Your task to perform on an android device: What's the weather like in Beijing? Image 0: 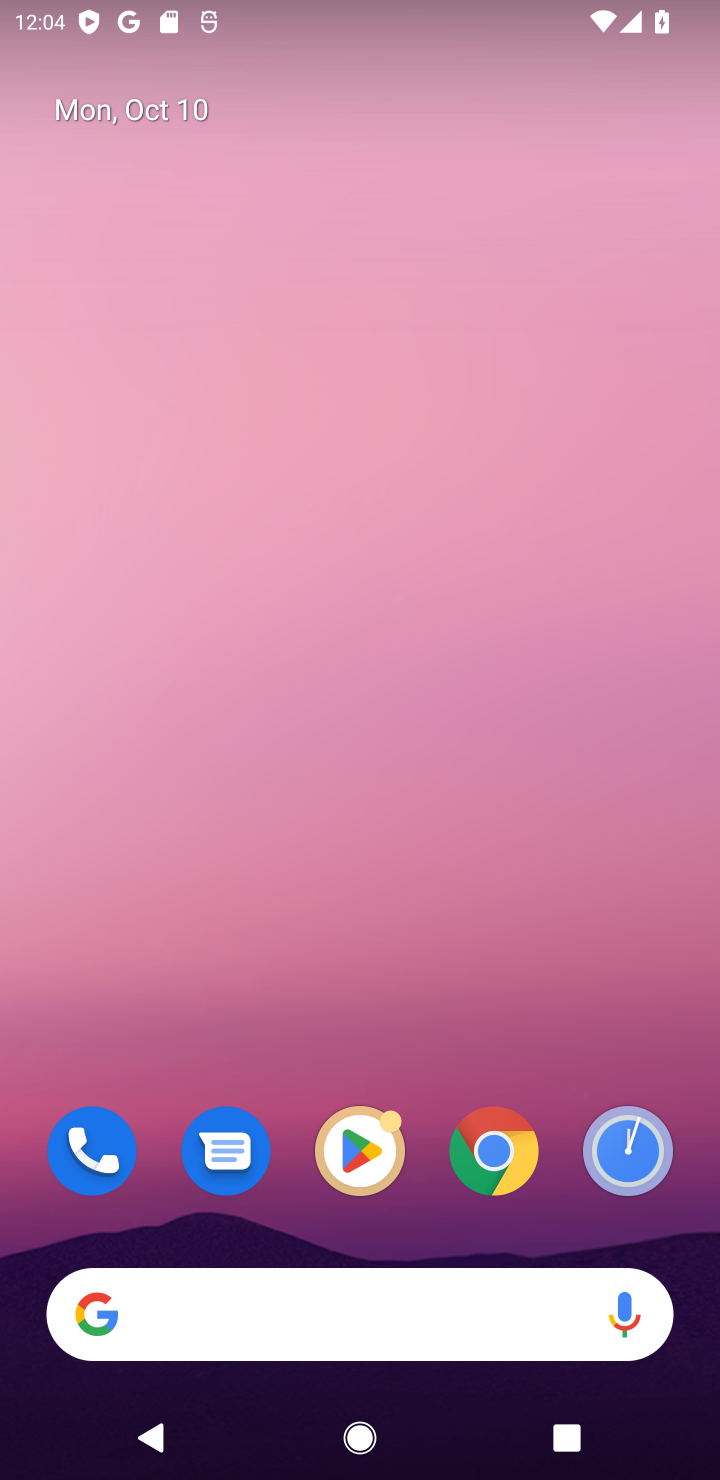
Step 0: click (433, 1313)
Your task to perform on an android device: What's the weather like in Beijing? Image 1: 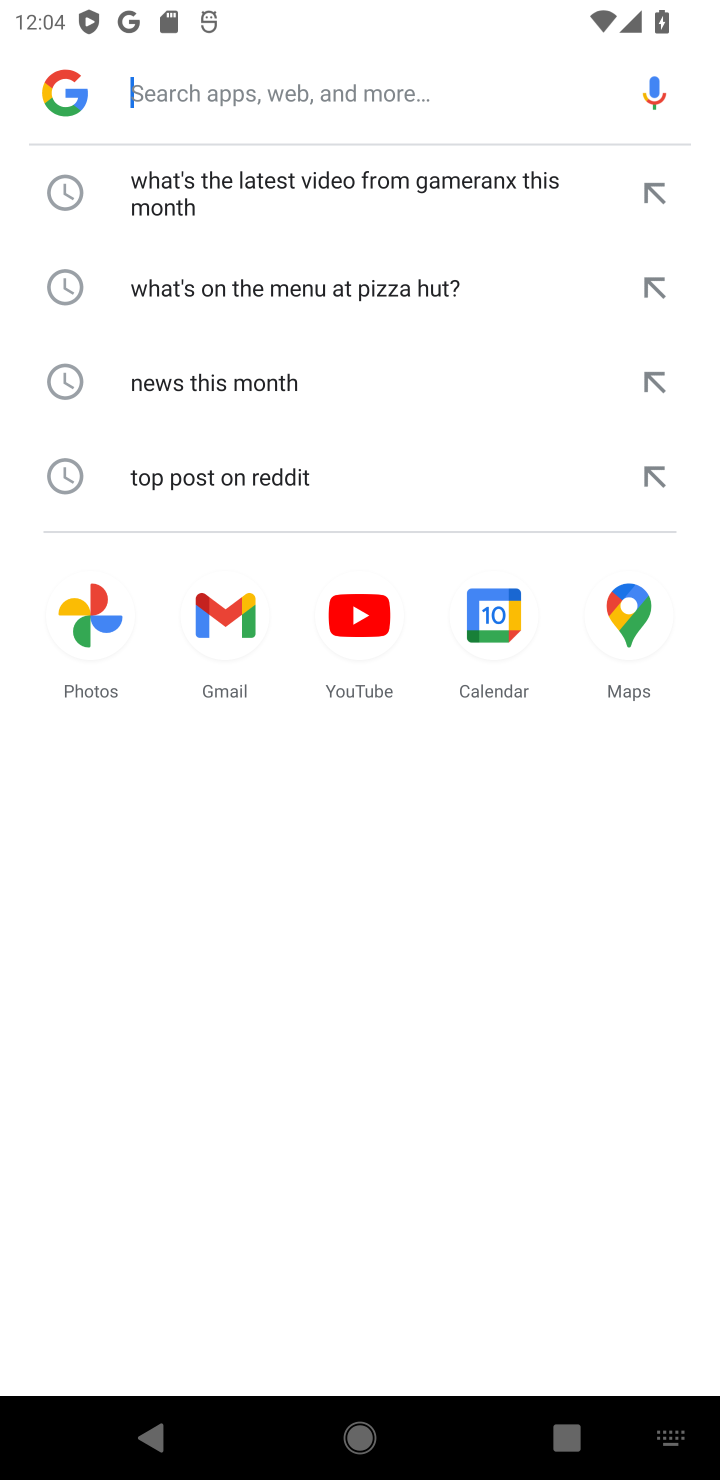
Step 1: type "What's the weather like in Beijing?"
Your task to perform on an android device: What's the weather like in Beijing? Image 2: 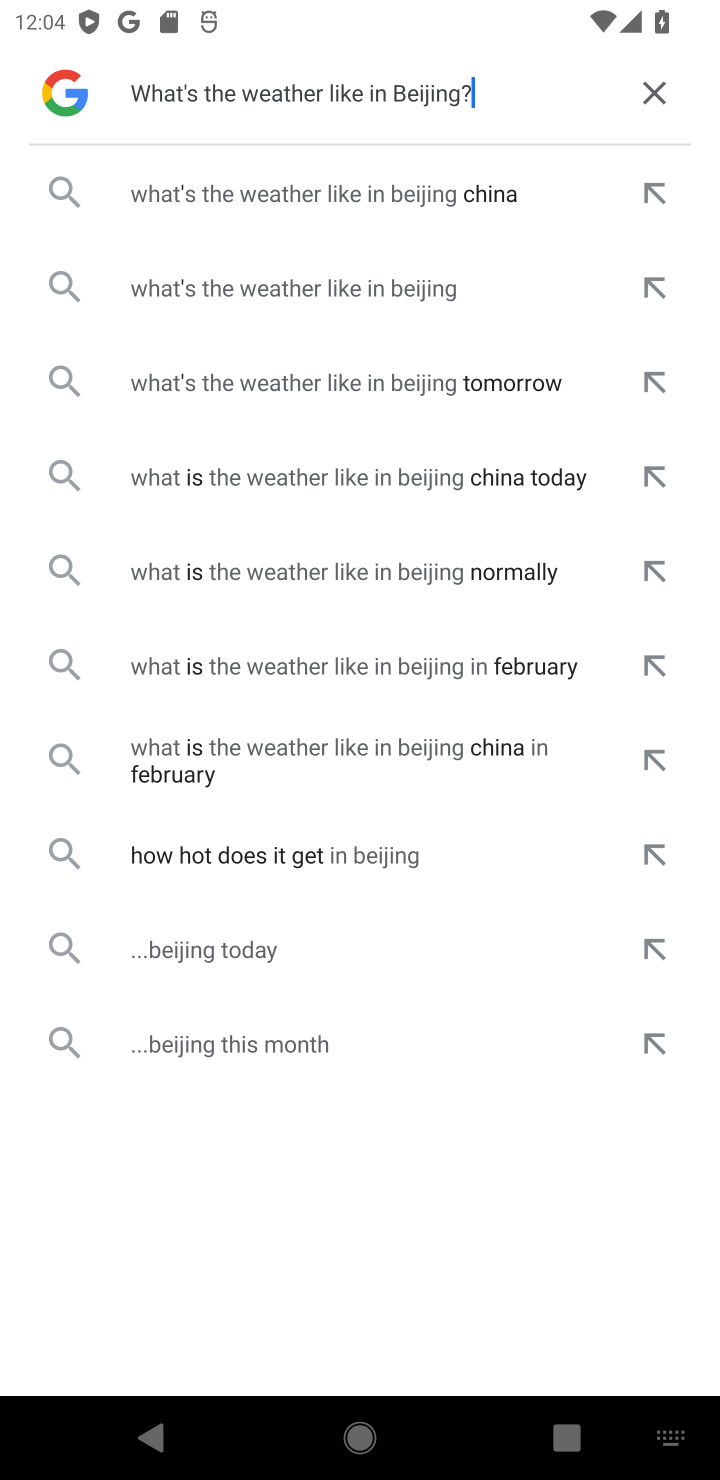
Step 2: click (339, 268)
Your task to perform on an android device: What's the weather like in Beijing? Image 3: 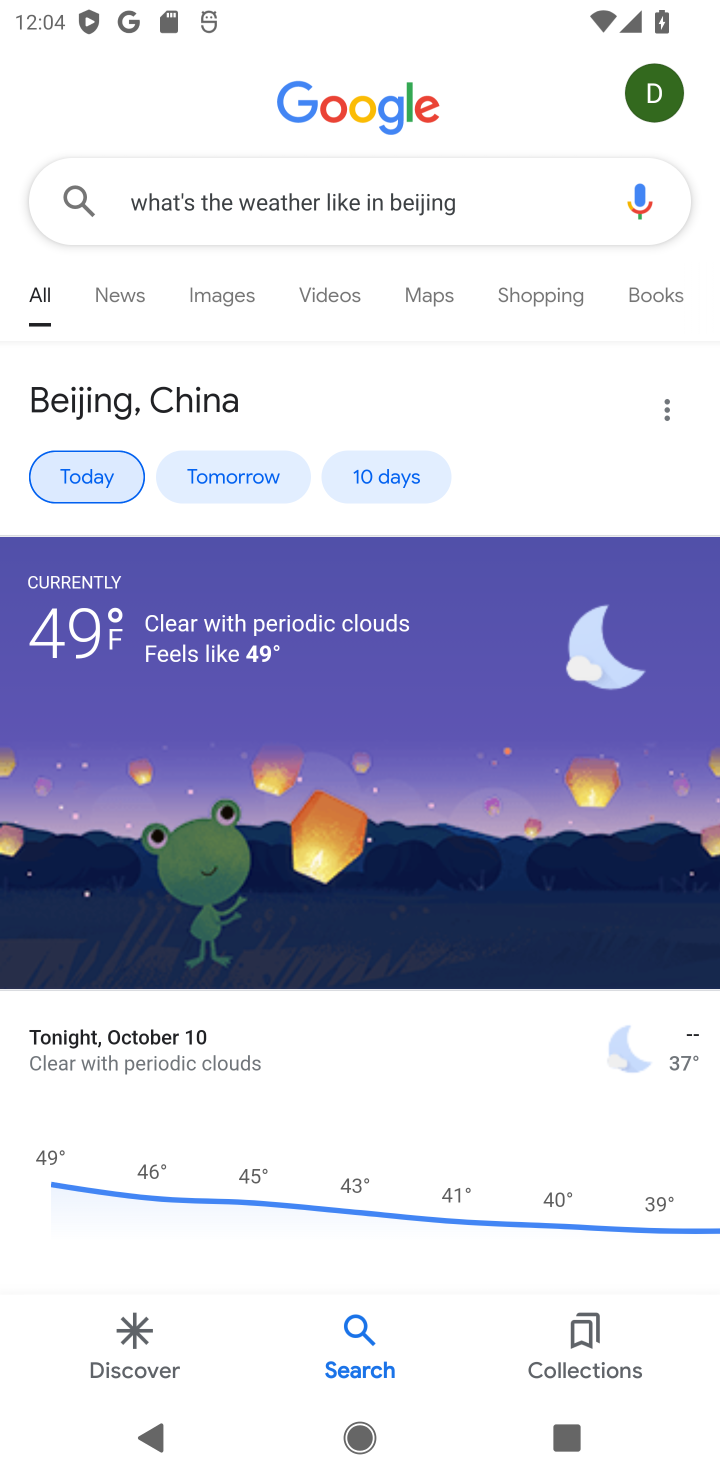
Step 3: task complete